Your task to perform on an android device: move an email to a new category in the gmail app Image 0: 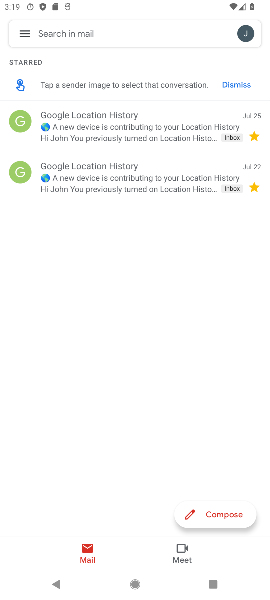
Step 0: press home button
Your task to perform on an android device: move an email to a new category in the gmail app Image 1: 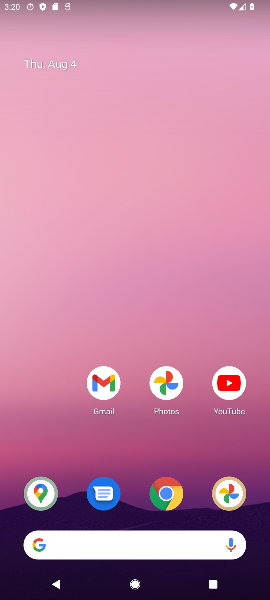
Step 1: click (99, 378)
Your task to perform on an android device: move an email to a new category in the gmail app Image 2: 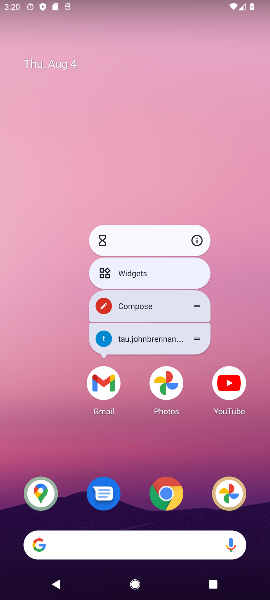
Step 2: click (99, 383)
Your task to perform on an android device: move an email to a new category in the gmail app Image 3: 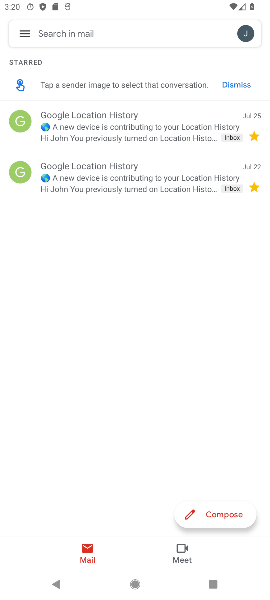
Step 3: press home button
Your task to perform on an android device: move an email to a new category in the gmail app Image 4: 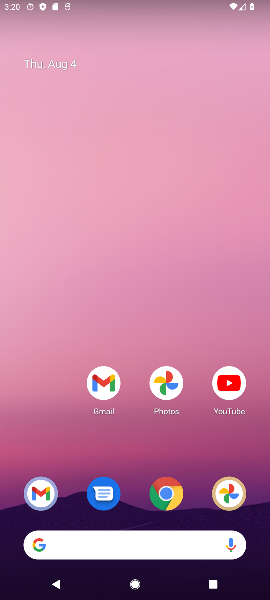
Step 4: click (93, 380)
Your task to perform on an android device: move an email to a new category in the gmail app Image 5: 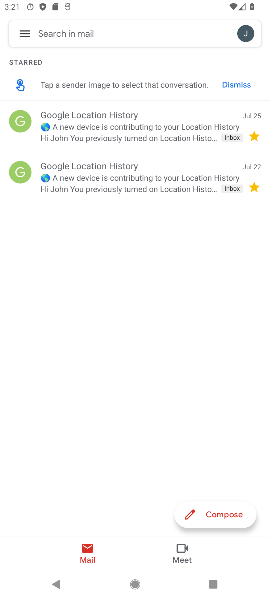
Step 5: task complete